Your task to perform on an android device: toggle sleep mode Image 0: 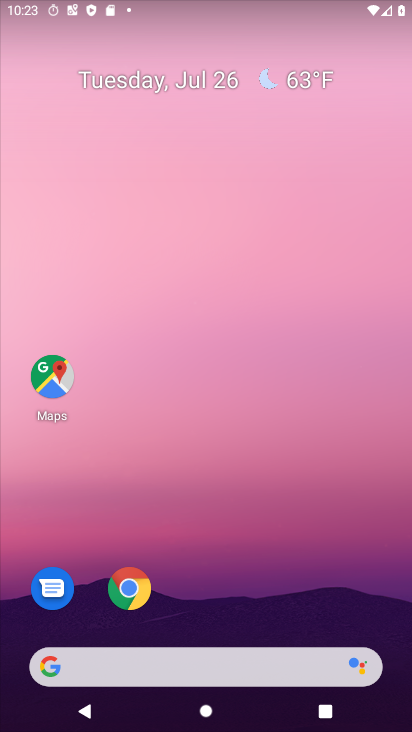
Step 0: drag from (215, 591) to (267, 75)
Your task to perform on an android device: toggle sleep mode Image 1: 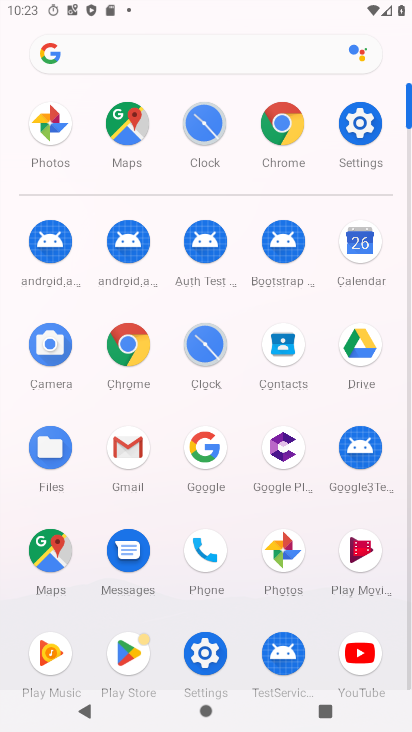
Step 1: click (360, 133)
Your task to perform on an android device: toggle sleep mode Image 2: 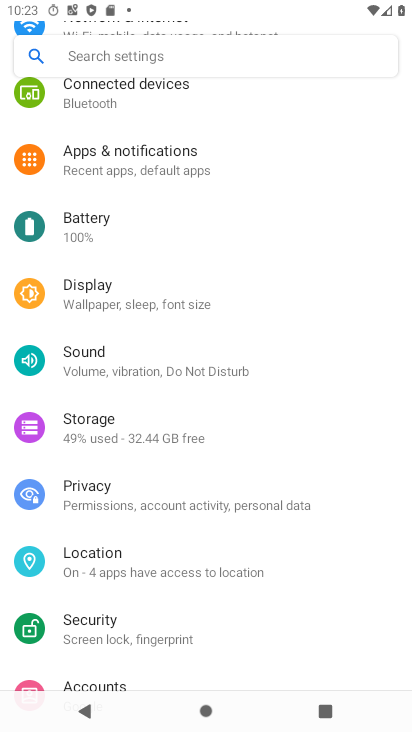
Step 2: task complete